Your task to perform on an android device: turn off javascript in the chrome app Image 0: 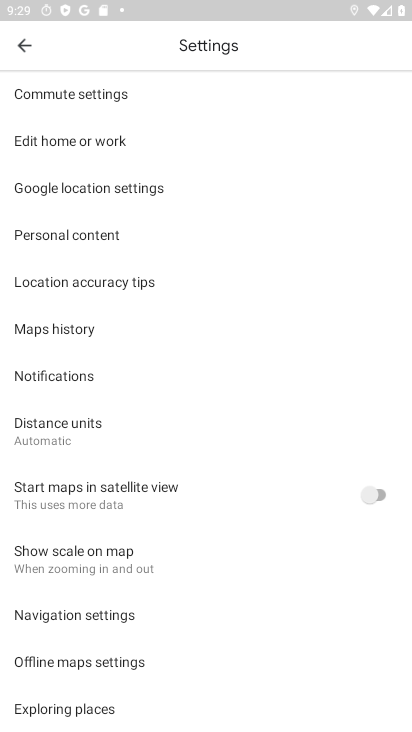
Step 0: press home button
Your task to perform on an android device: turn off javascript in the chrome app Image 1: 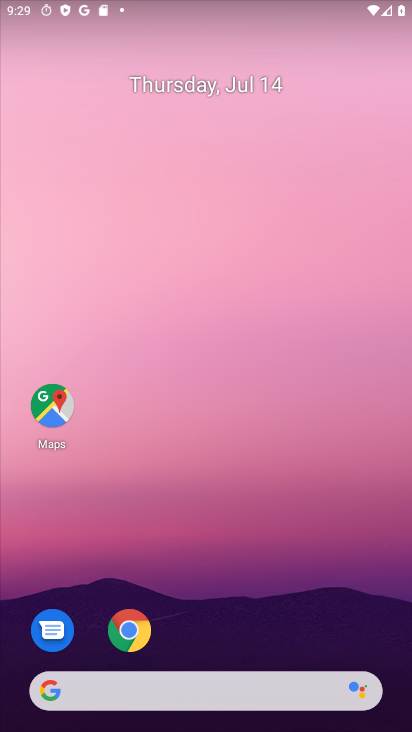
Step 1: click (127, 633)
Your task to perform on an android device: turn off javascript in the chrome app Image 2: 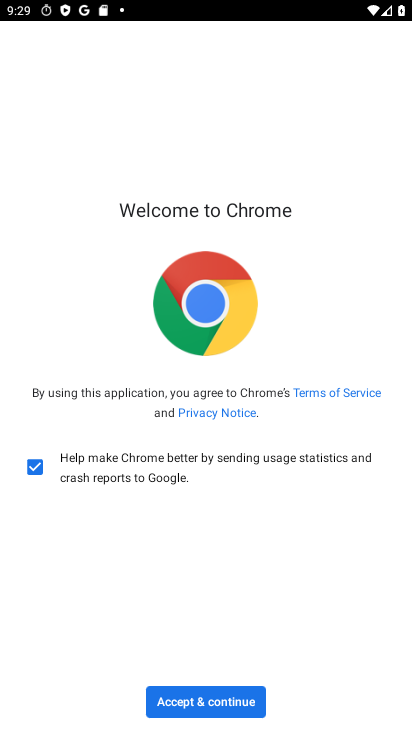
Step 2: click (180, 698)
Your task to perform on an android device: turn off javascript in the chrome app Image 3: 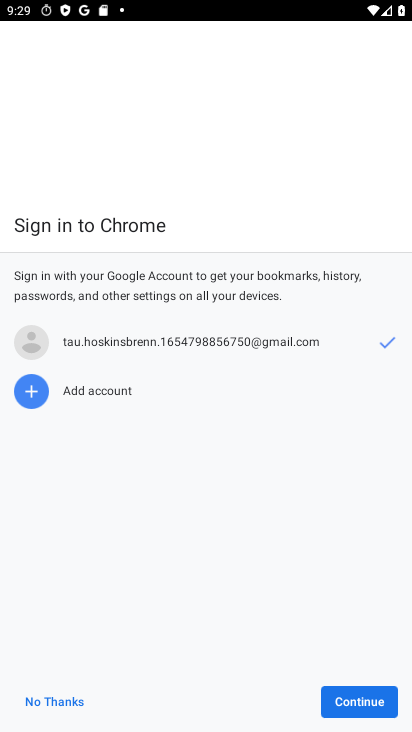
Step 3: click (361, 695)
Your task to perform on an android device: turn off javascript in the chrome app Image 4: 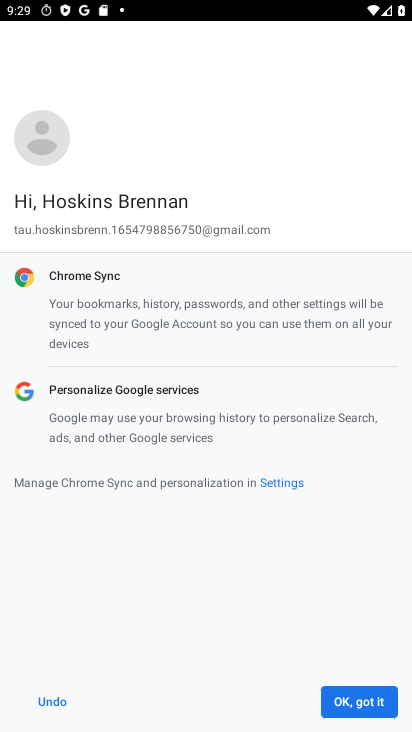
Step 4: click (357, 694)
Your task to perform on an android device: turn off javascript in the chrome app Image 5: 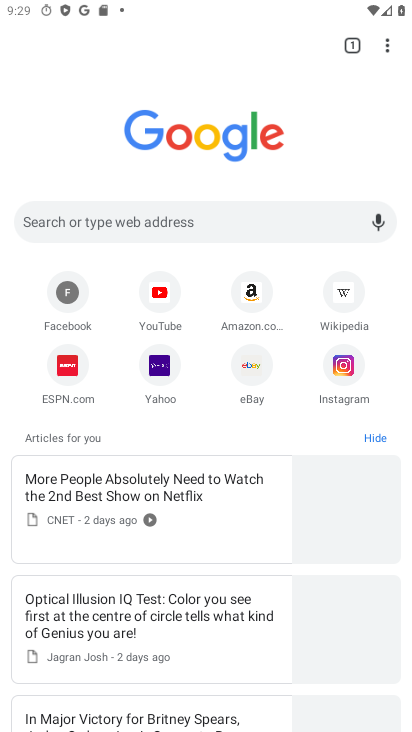
Step 5: click (386, 39)
Your task to perform on an android device: turn off javascript in the chrome app Image 6: 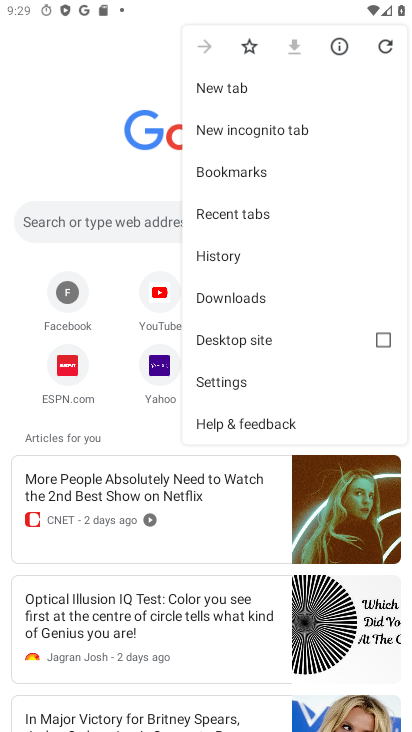
Step 6: click (222, 371)
Your task to perform on an android device: turn off javascript in the chrome app Image 7: 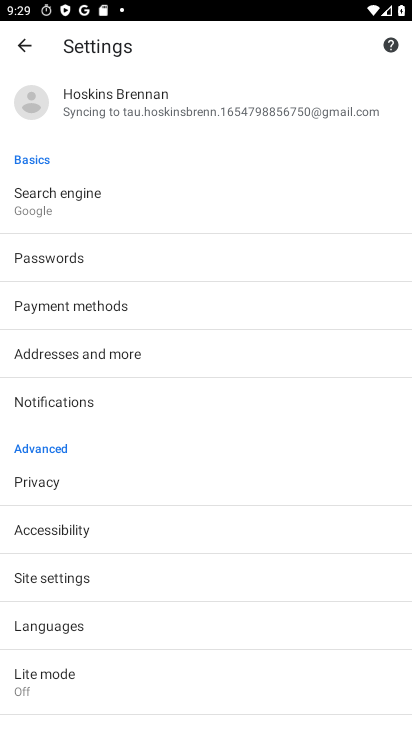
Step 7: click (30, 581)
Your task to perform on an android device: turn off javascript in the chrome app Image 8: 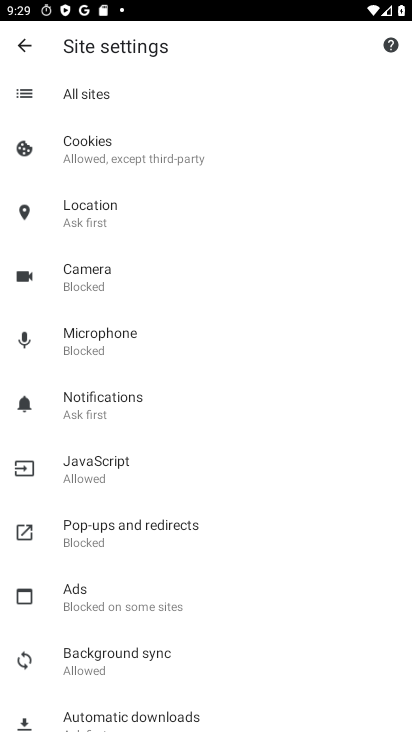
Step 8: click (114, 465)
Your task to perform on an android device: turn off javascript in the chrome app Image 9: 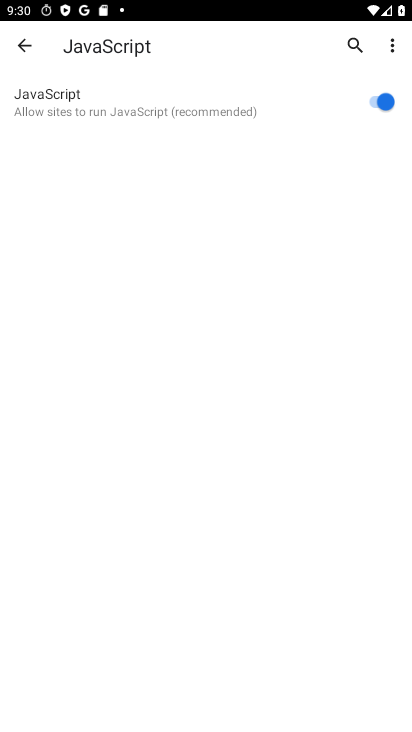
Step 9: click (381, 98)
Your task to perform on an android device: turn off javascript in the chrome app Image 10: 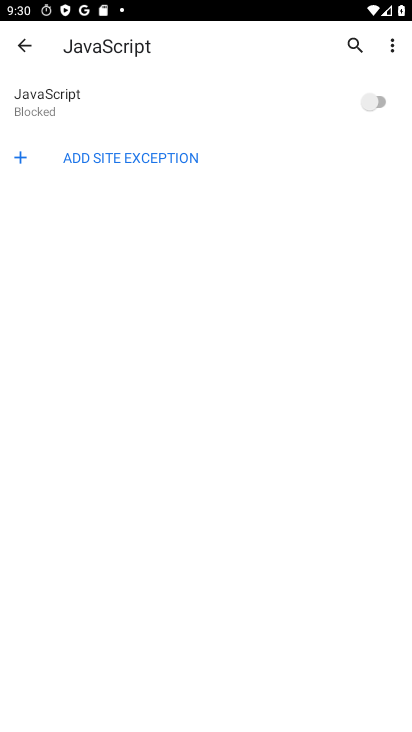
Step 10: task complete